Your task to perform on an android device: Go to Yahoo.com Image 0: 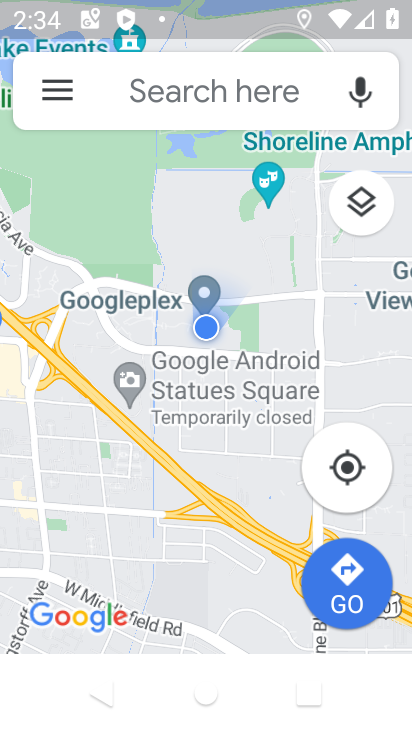
Step 0: press back button
Your task to perform on an android device: Go to Yahoo.com Image 1: 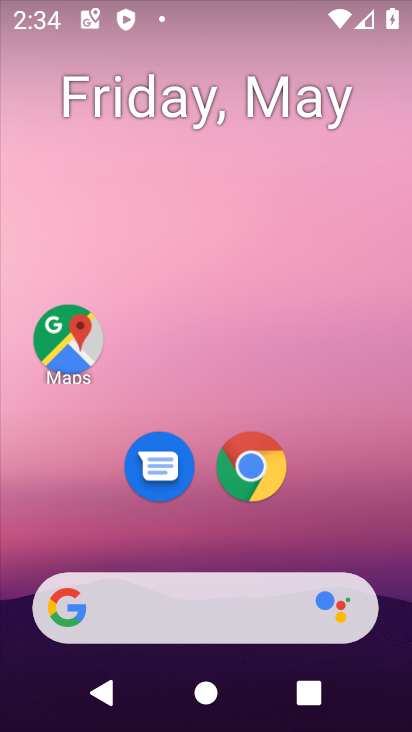
Step 1: click (243, 458)
Your task to perform on an android device: Go to Yahoo.com Image 2: 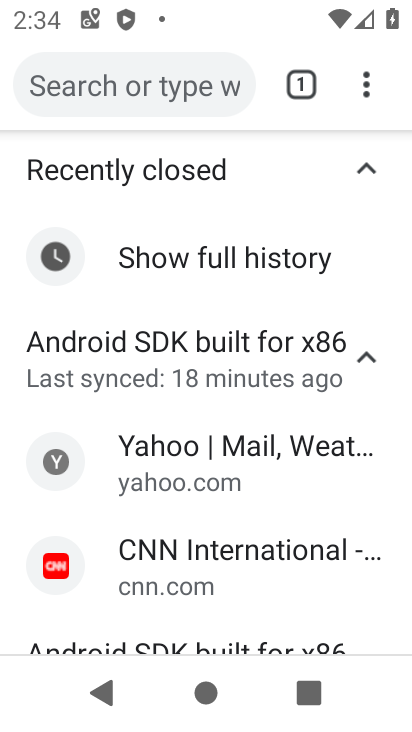
Step 2: click (298, 76)
Your task to perform on an android device: Go to Yahoo.com Image 3: 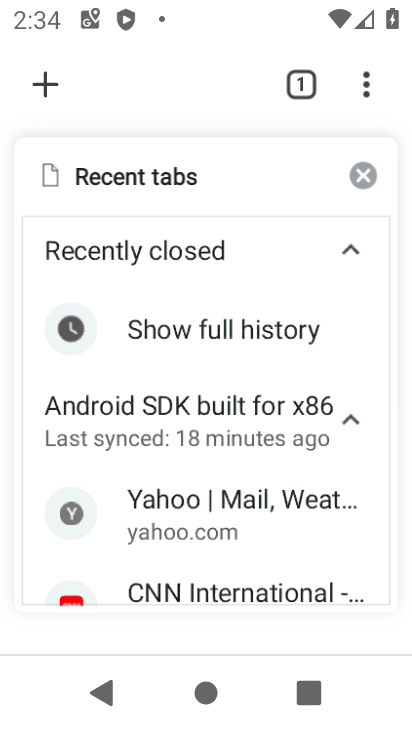
Step 3: click (39, 75)
Your task to perform on an android device: Go to Yahoo.com Image 4: 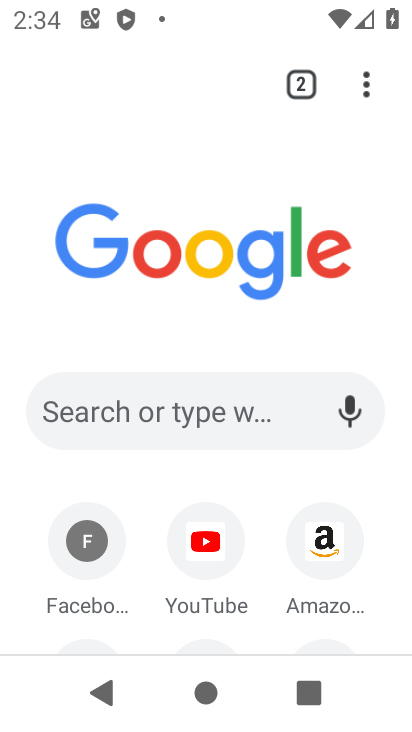
Step 4: drag from (175, 613) to (276, 197)
Your task to perform on an android device: Go to Yahoo.com Image 5: 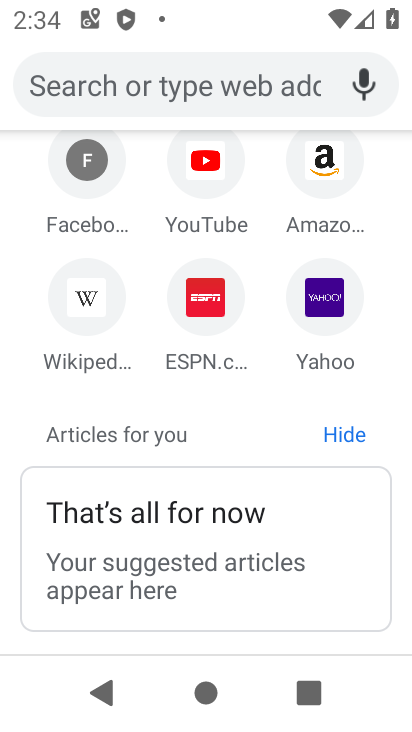
Step 5: click (334, 301)
Your task to perform on an android device: Go to Yahoo.com Image 6: 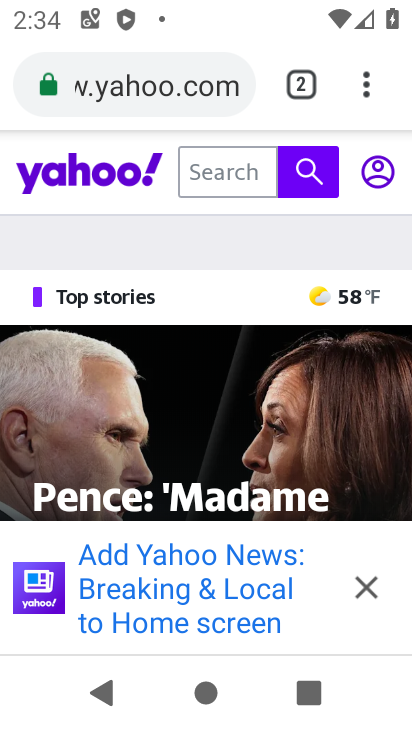
Step 6: task complete